Your task to perform on an android device: Open Google Maps Image 0: 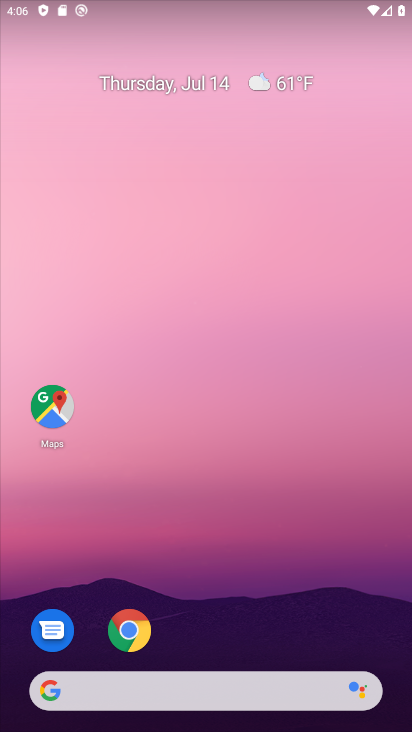
Step 0: click (34, 401)
Your task to perform on an android device: Open Google Maps Image 1: 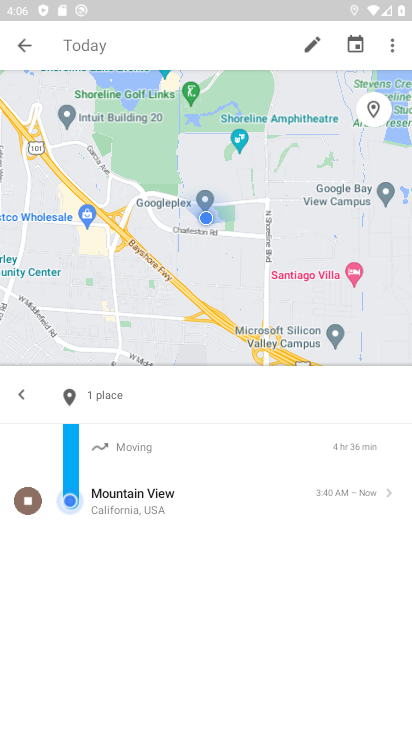
Step 1: task complete